Your task to perform on an android device: Open CNN.com Image 0: 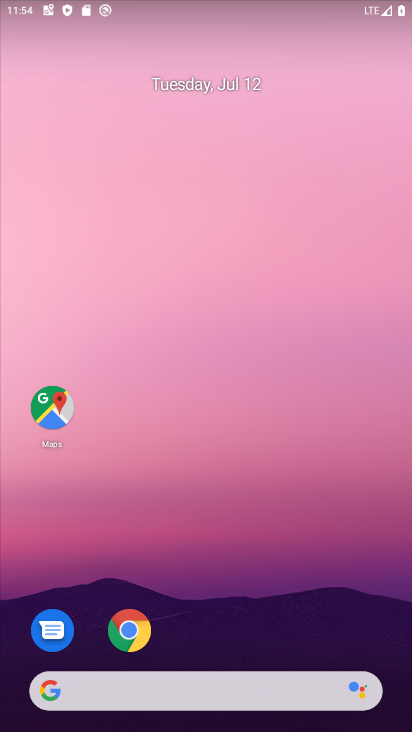
Step 0: drag from (400, 641) to (178, 41)
Your task to perform on an android device: Open CNN.com Image 1: 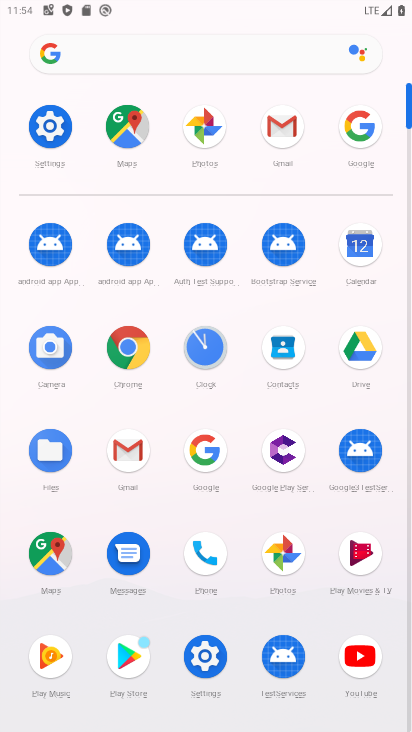
Step 1: click (216, 455)
Your task to perform on an android device: Open CNN.com Image 2: 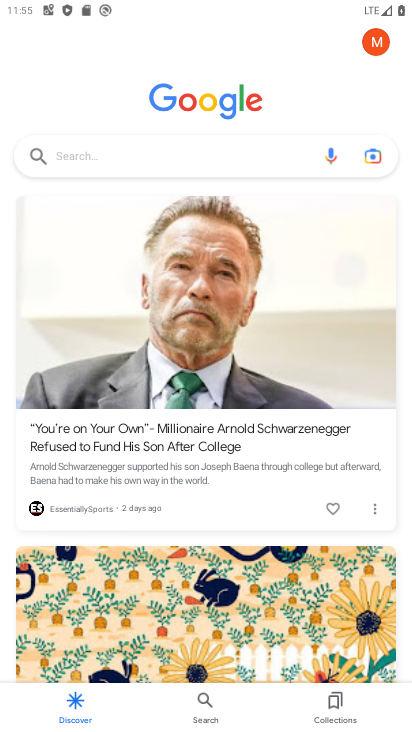
Step 2: click (119, 167)
Your task to perform on an android device: Open CNN.com Image 3: 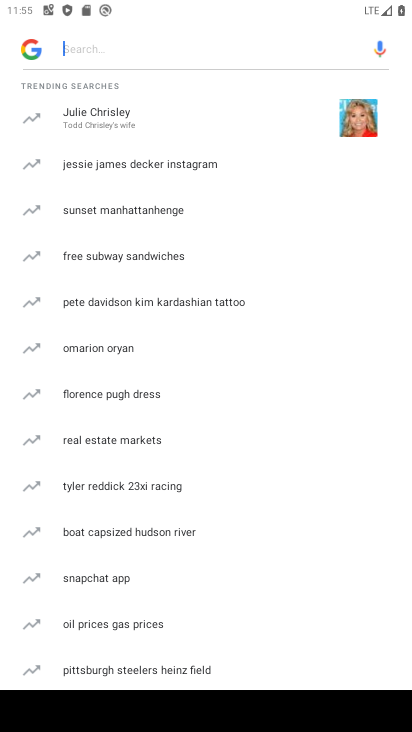
Step 3: type "cnn.com"
Your task to perform on an android device: Open CNN.com Image 4: 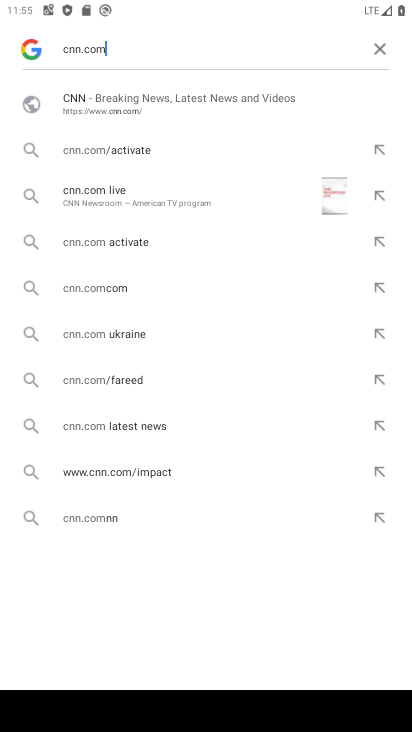
Step 4: click (114, 117)
Your task to perform on an android device: Open CNN.com Image 5: 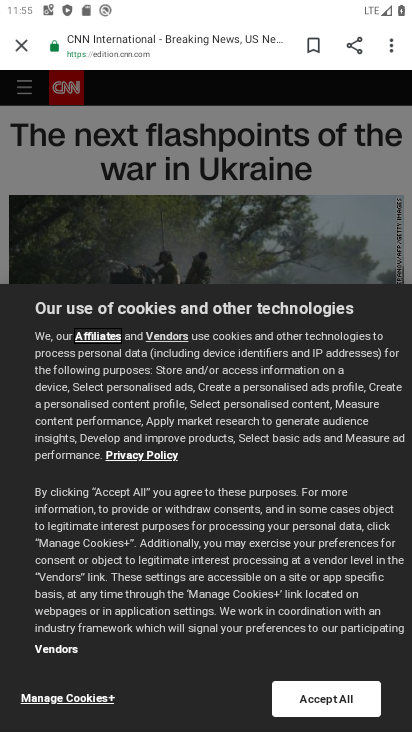
Step 5: task complete